Your task to perform on an android device: turn off location Image 0: 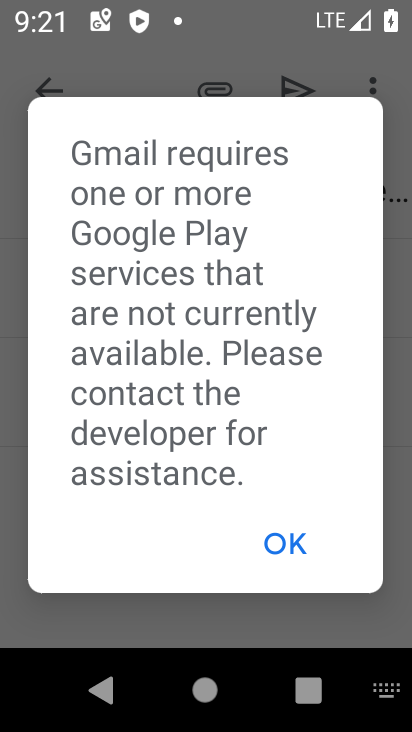
Step 0: click (287, 549)
Your task to perform on an android device: turn off location Image 1: 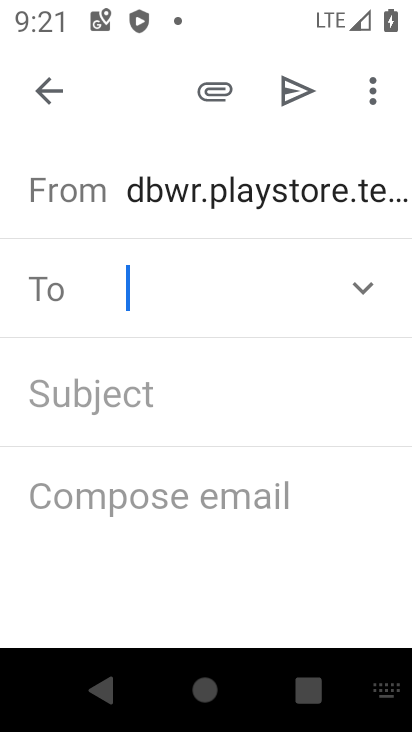
Step 1: press home button
Your task to perform on an android device: turn off location Image 2: 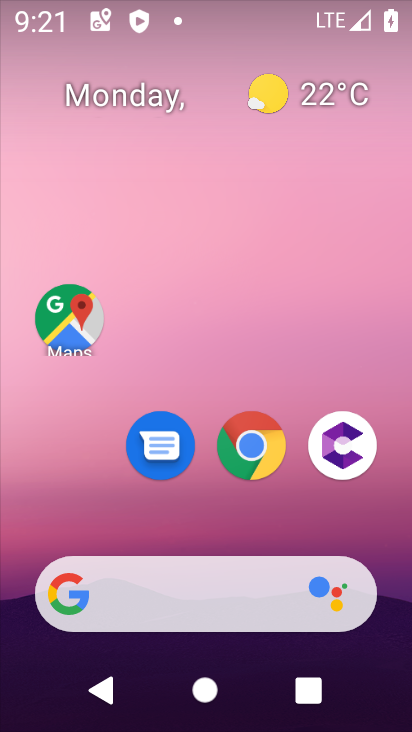
Step 2: drag from (215, 521) to (245, 90)
Your task to perform on an android device: turn off location Image 3: 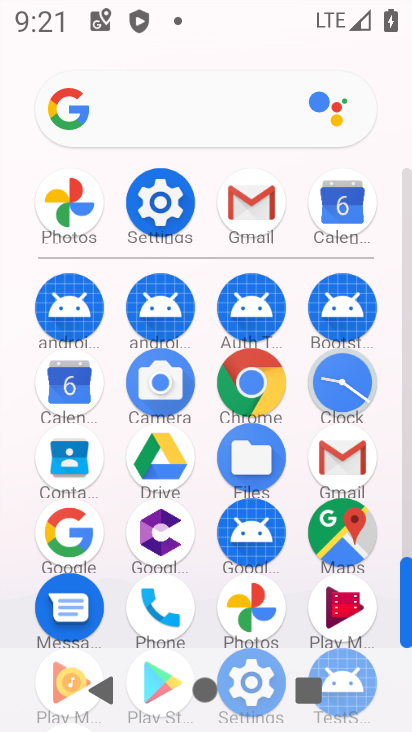
Step 3: click (169, 194)
Your task to perform on an android device: turn off location Image 4: 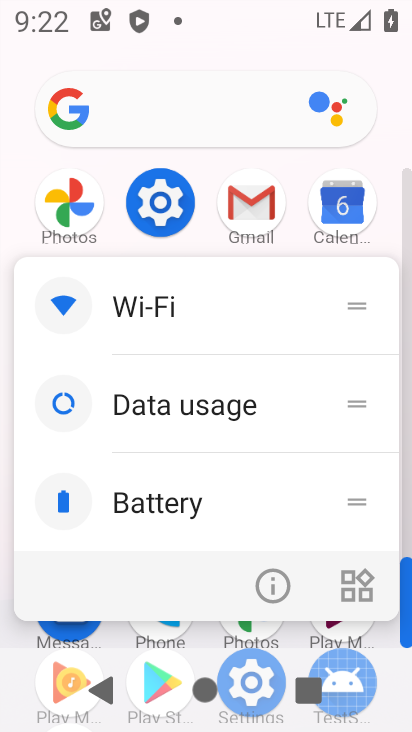
Step 4: click (169, 205)
Your task to perform on an android device: turn off location Image 5: 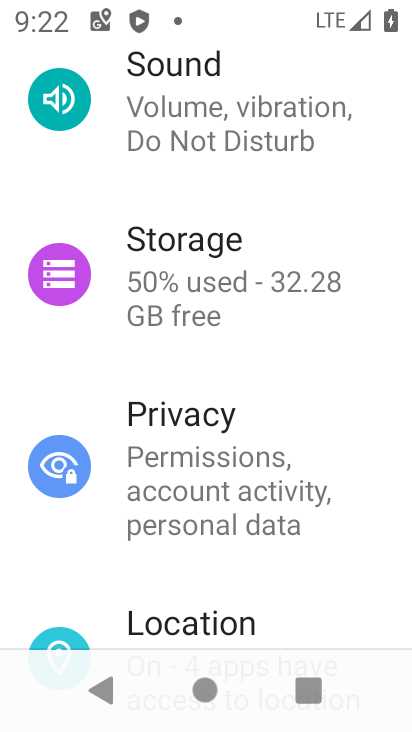
Step 5: click (208, 619)
Your task to perform on an android device: turn off location Image 6: 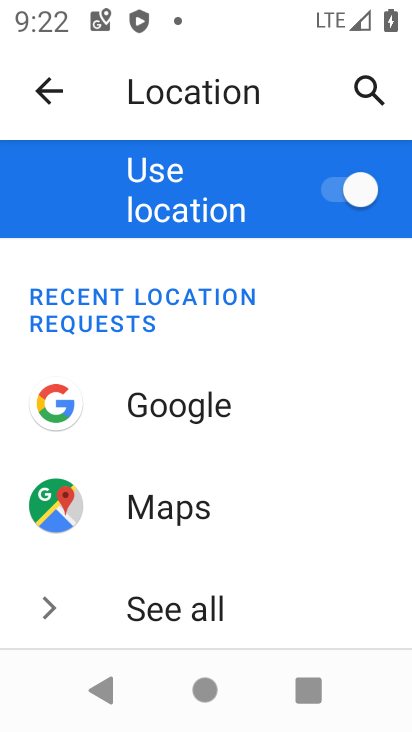
Step 6: click (370, 196)
Your task to perform on an android device: turn off location Image 7: 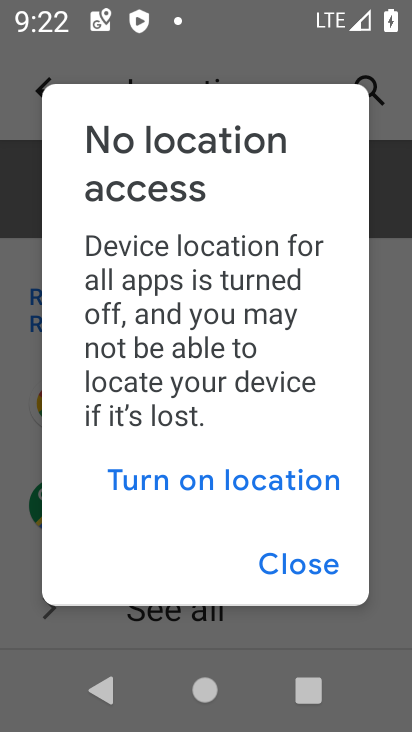
Step 7: click (308, 572)
Your task to perform on an android device: turn off location Image 8: 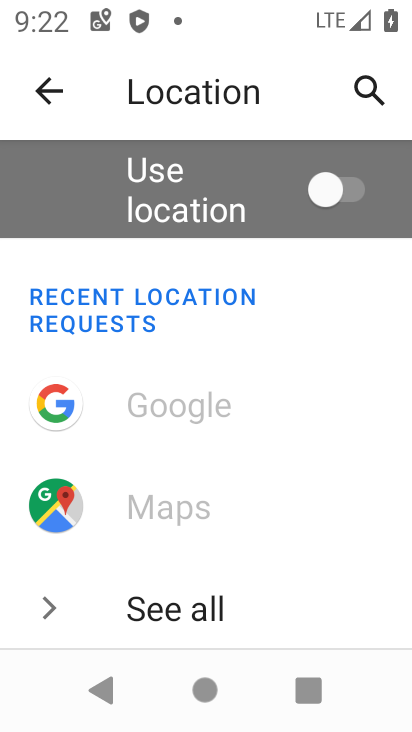
Step 8: task complete